Your task to perform on an android device: open app "YouTube Kids" (install if not already installed) Image 0: 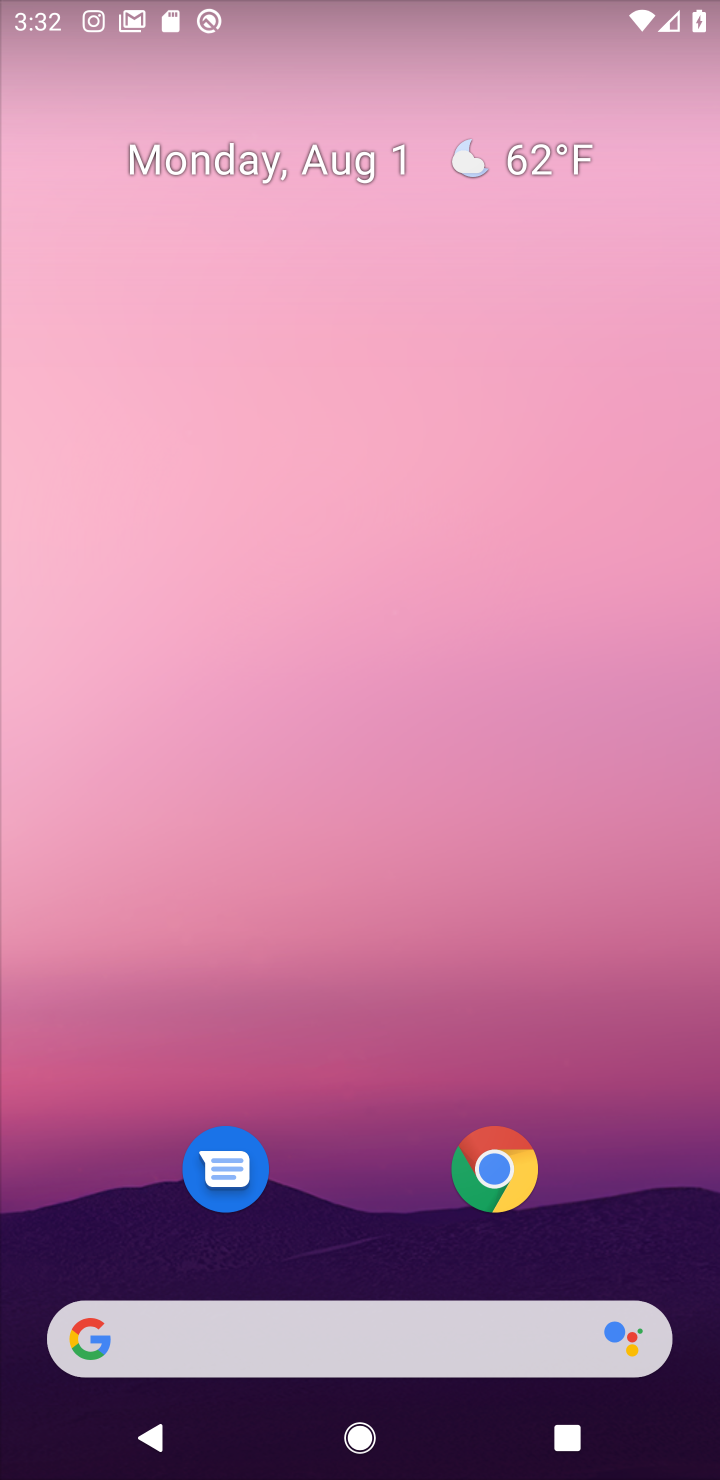
Step 0: drag from (376, 52) to (394, 261)
Your task to perform on an android device: open app "YouTube Kids" (install if not already installed) Image 1: 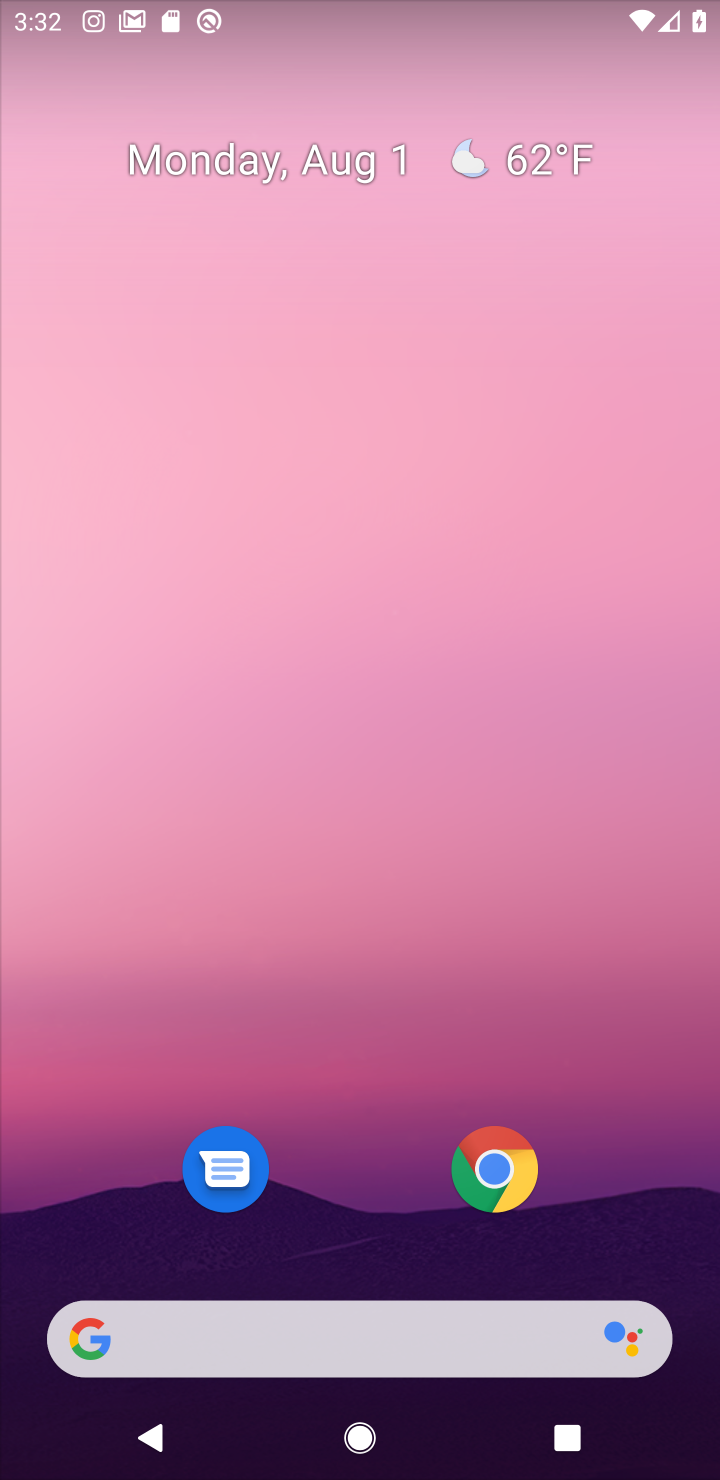
Step 1: click (375, 268)
Your task to perform on an android device: open app "YouTube Kids" (install if not already installed) Image 2: 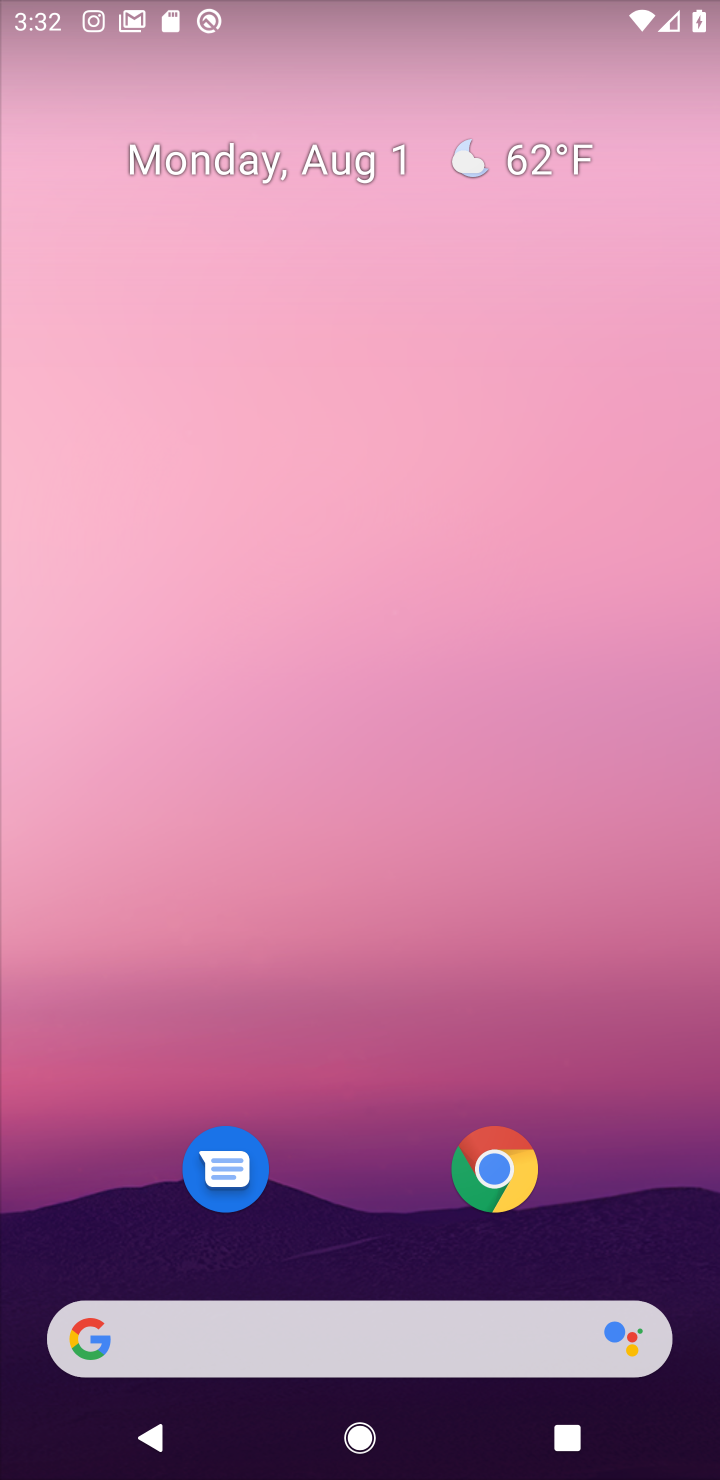
Step 2: drag from (325, 1137) to (309, 321)
Your task to perform on an android device: open app "YouTube Kids" (install if not already installed) Image 3: 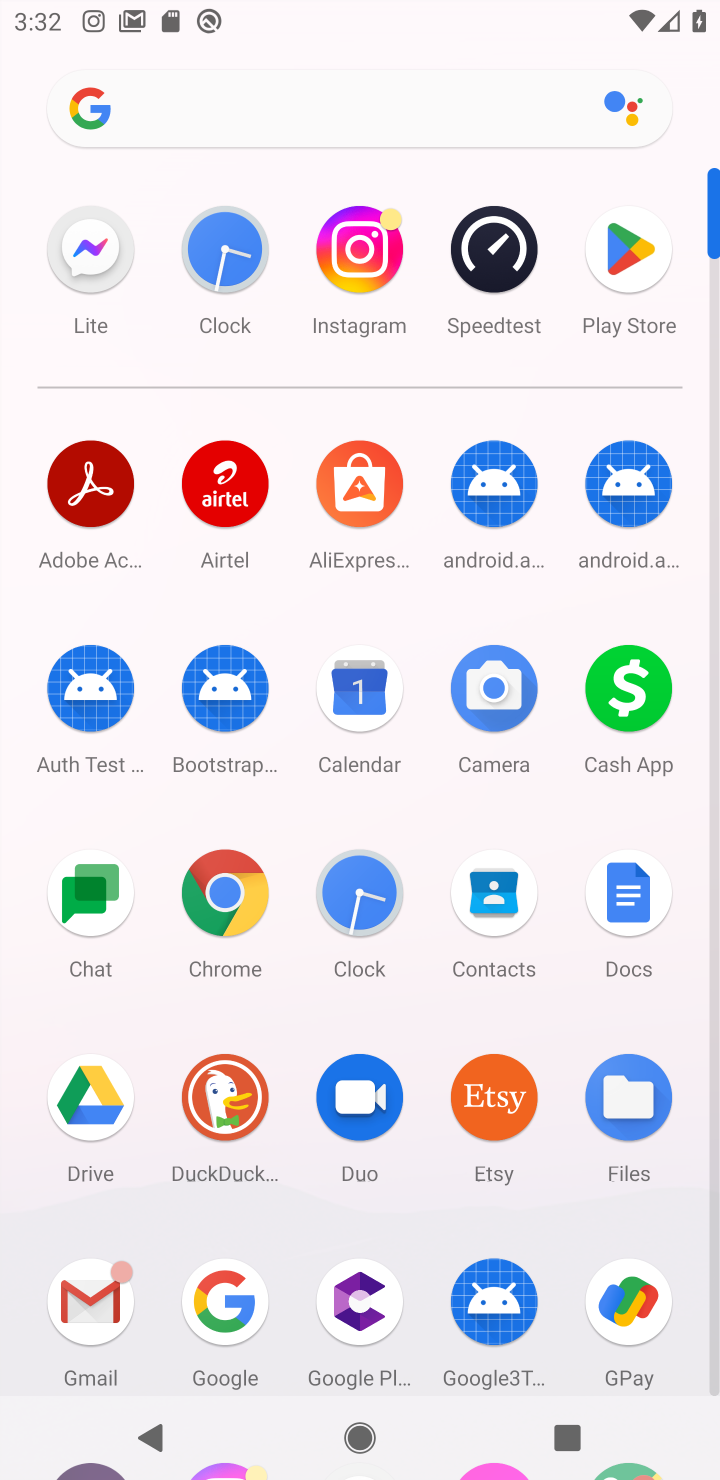
Step 3: click (620, 324)
Your task to perform on an android device: open app "YouTube Kids" (install if not already installed) Image 4: 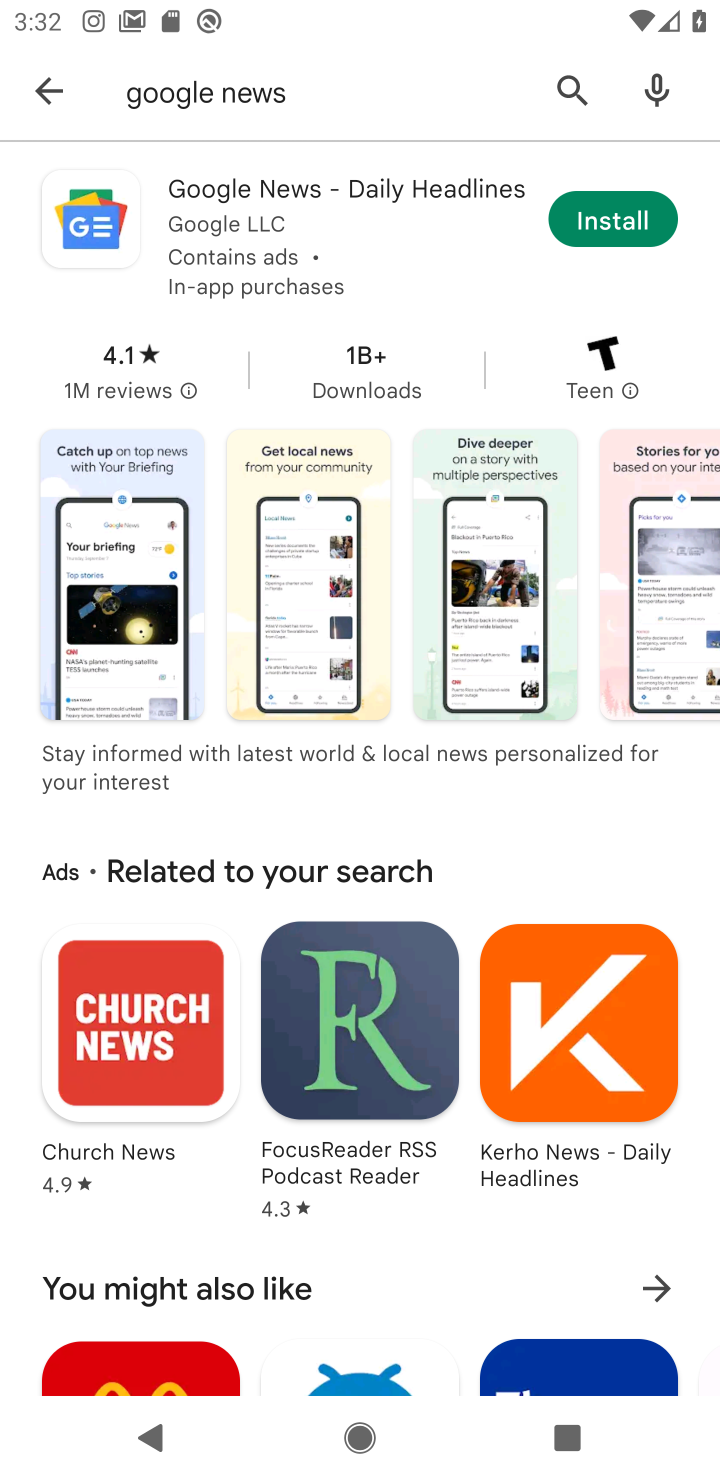
Step 4: click (61, 94)
Your task to perform on an android device: open app "YouTube Kids" (install if not already installed) Image 5: 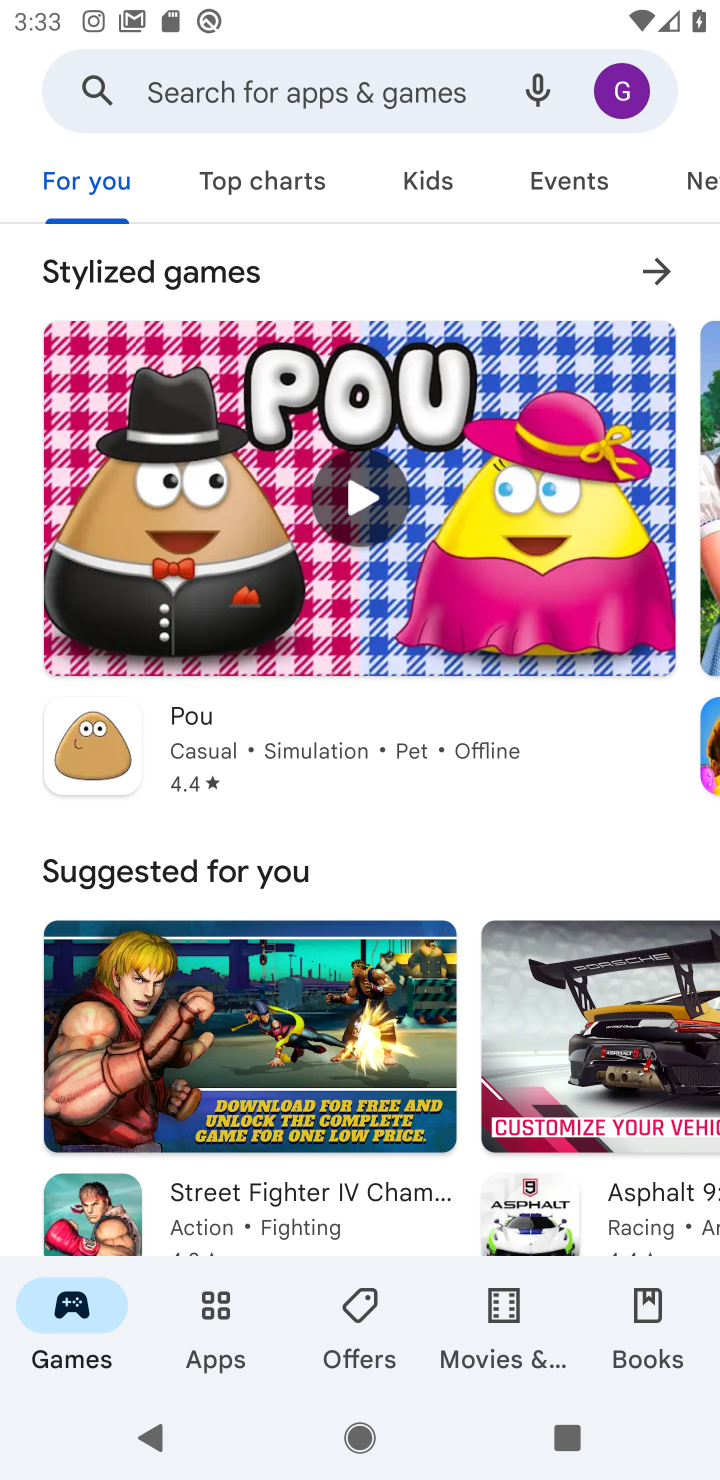
Step 5: click (193, 56)
Your task to perform on an android device: open app "YouTube Kids" (install if not already installed) Image 6: 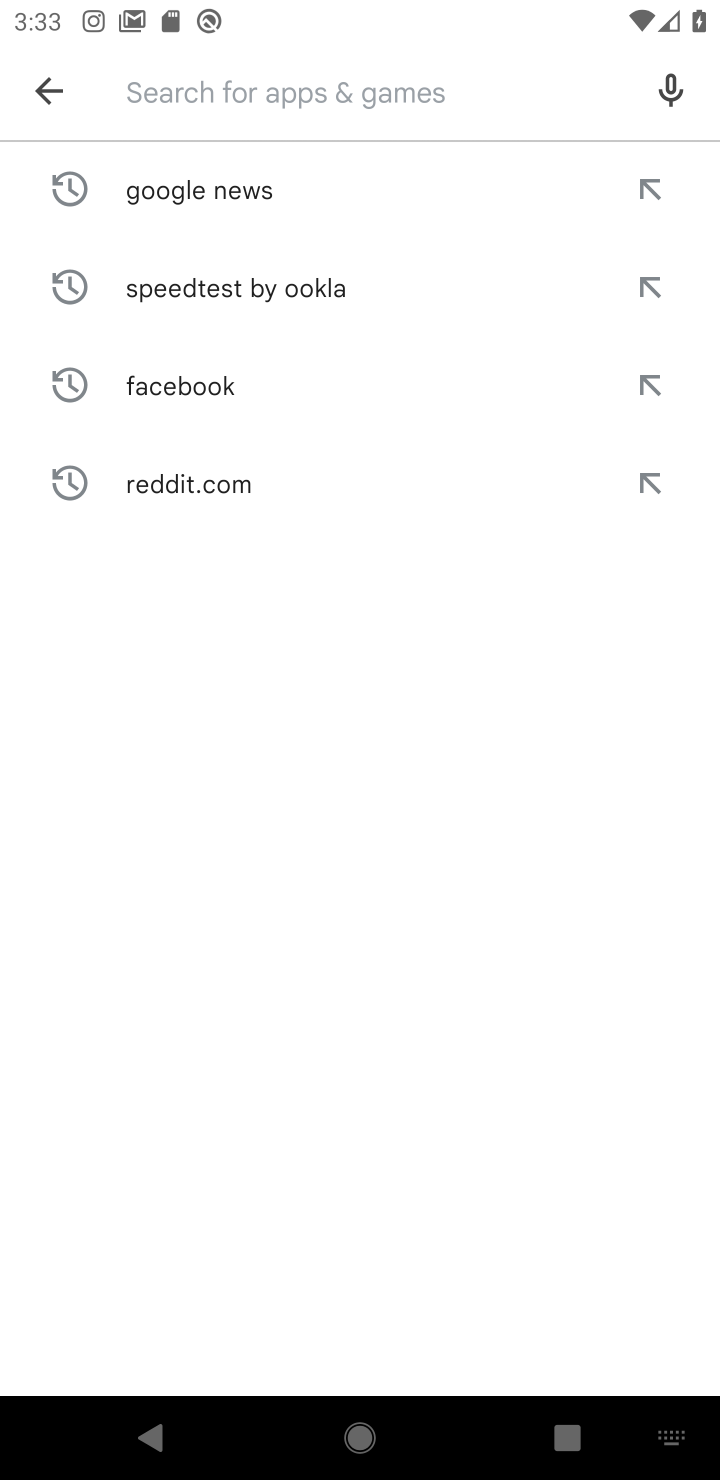
Step 6: type "you tube kids"
Your task to perform on an android device: open app "YouTube Kids" (install if not already installed) Image 7: 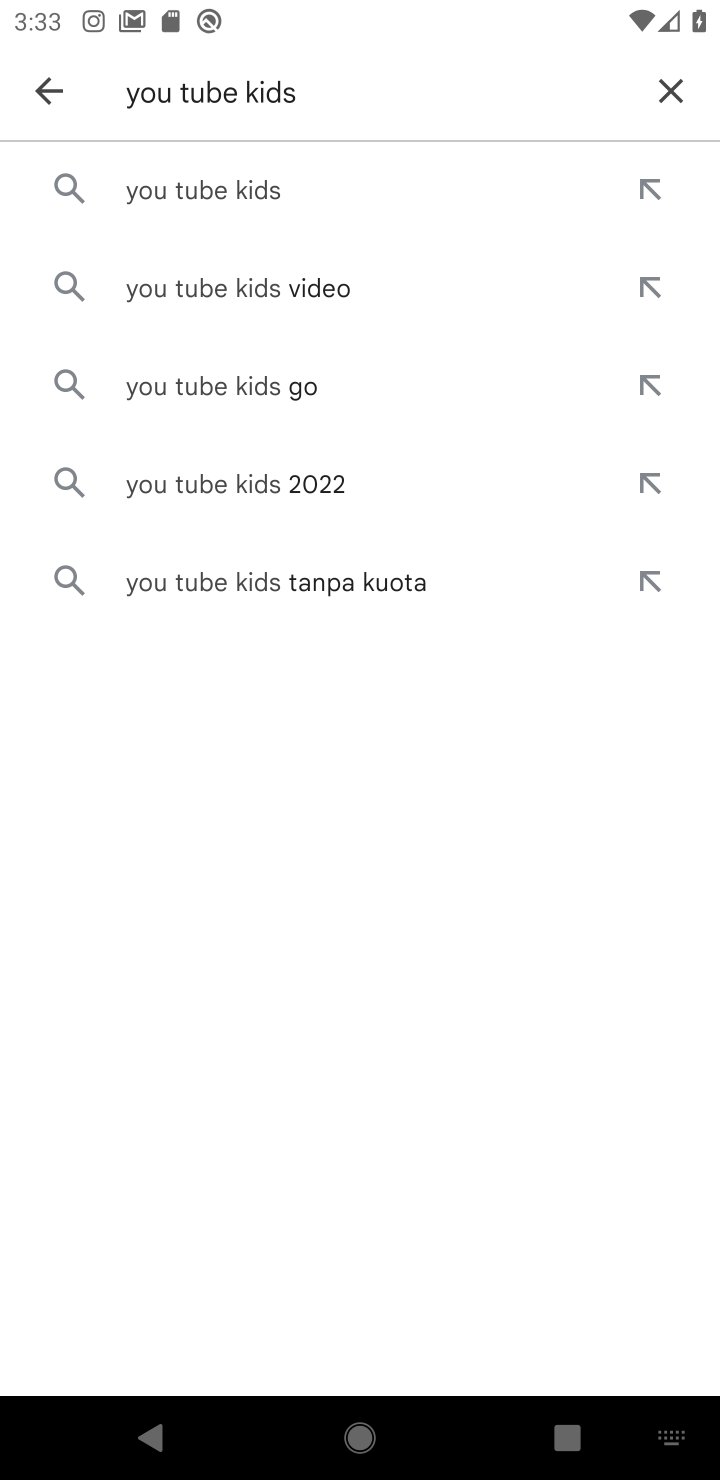
Step 7: click (291, 206)
Your task to perform on an android device: open app "YouTube Kids" (install if not already installed) Image 8: 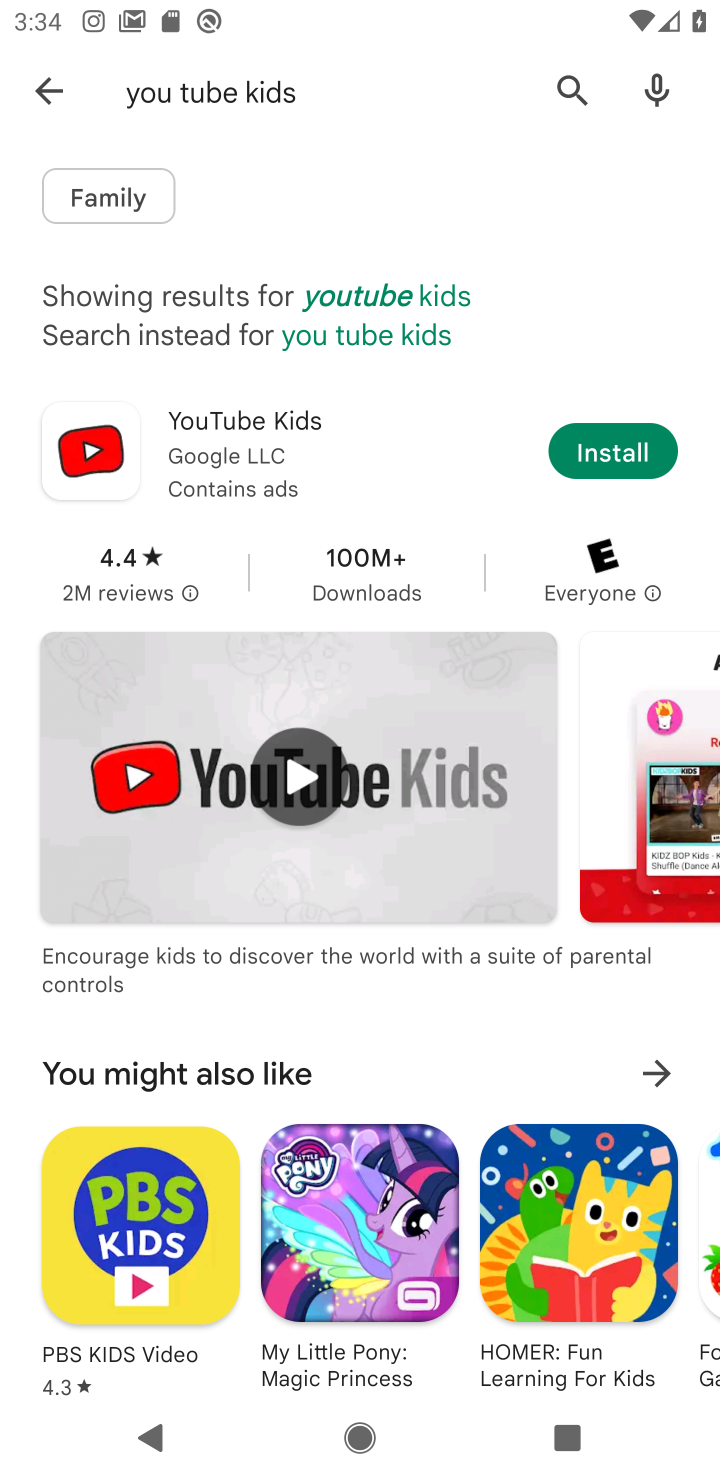
Step 8: click (610, 434)
Your task to perform on an android device: open app "YouTube Kids" (install if not already installed) Image 9: 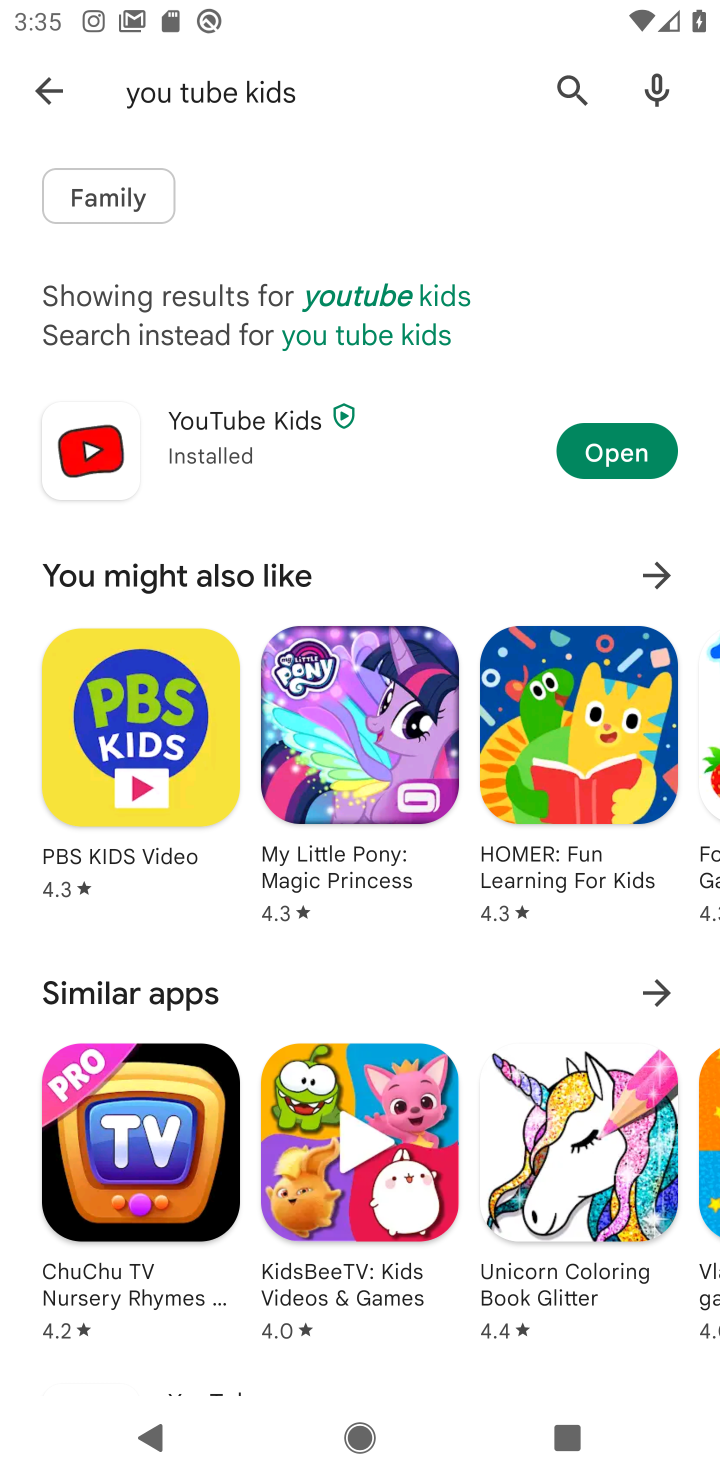
Step 9: click (665, 458)
Your task to perform on an android device: open app "YouTube Kids" (install if not already installed) Image 10: 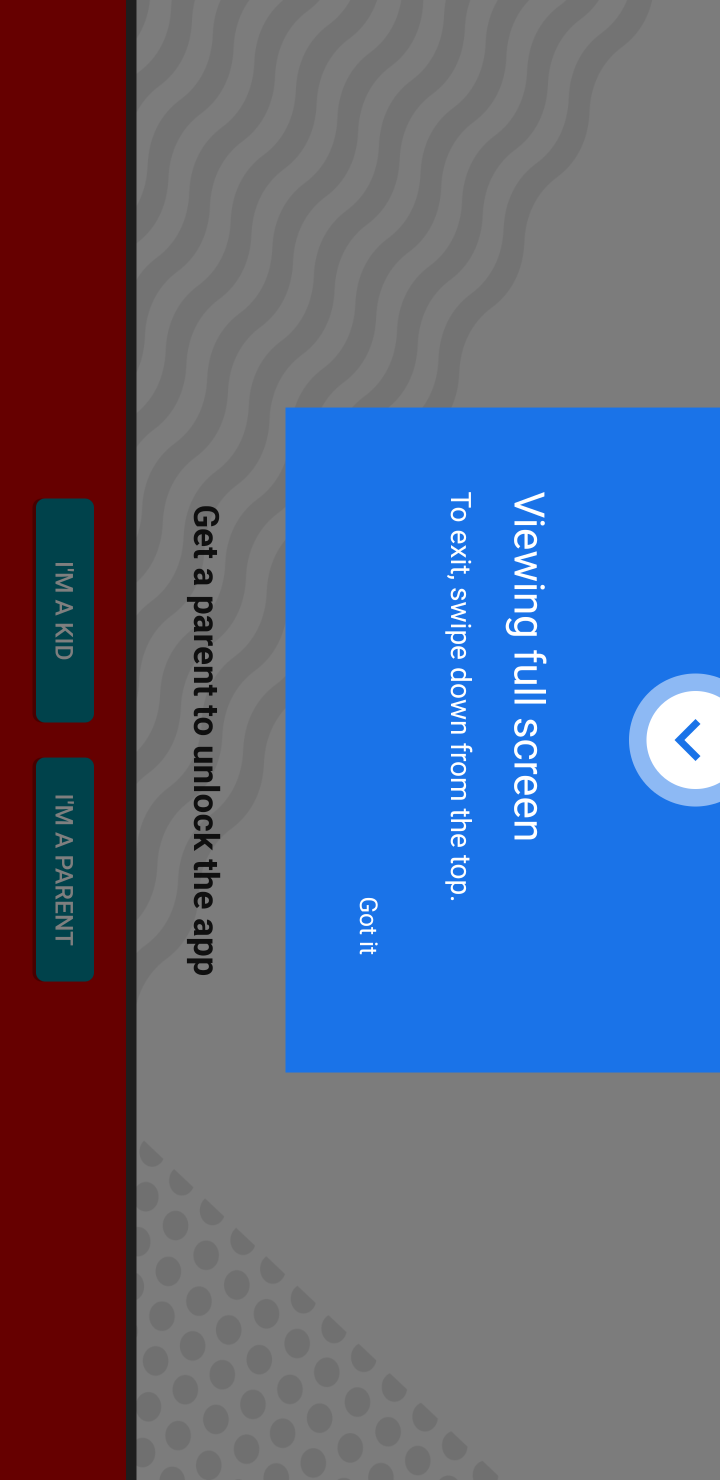
Step 10: task complete